Your task to perform on an android device: Go to network settings Image 0: 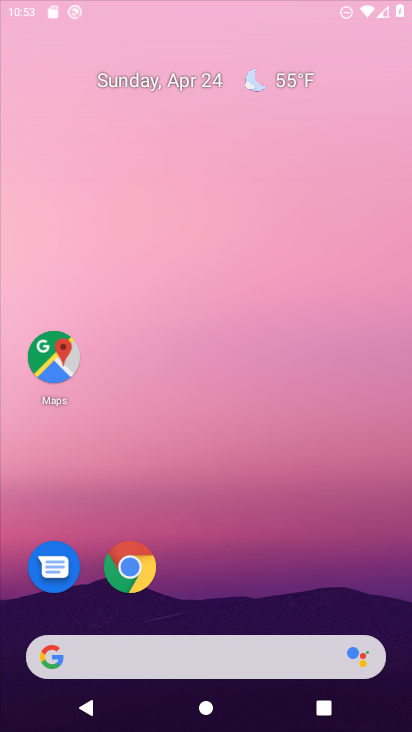
Step 0: click (383, 208)
Your task to perform on an android device: Go to network settings Image 1: 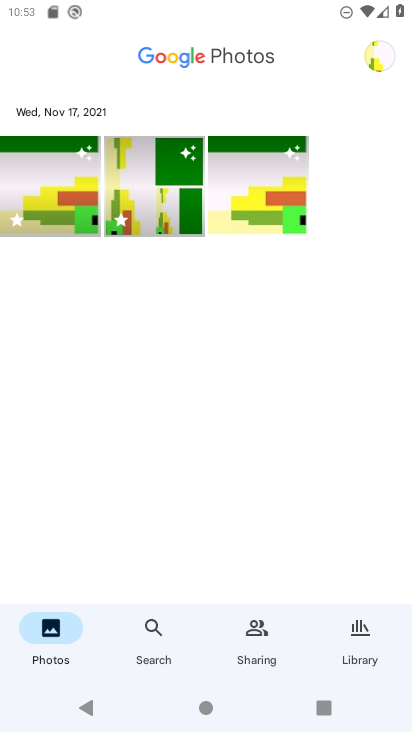
Step 1: press home button
Your task to perform on an android device: Go to network settings Image 2: 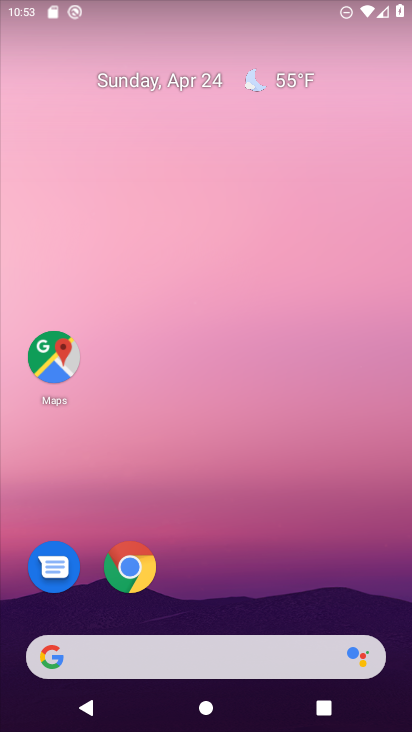
Step 2: drag from (387, 538) to (362, 158)
Your task to perform on an android device: Go to network settings Image 3: 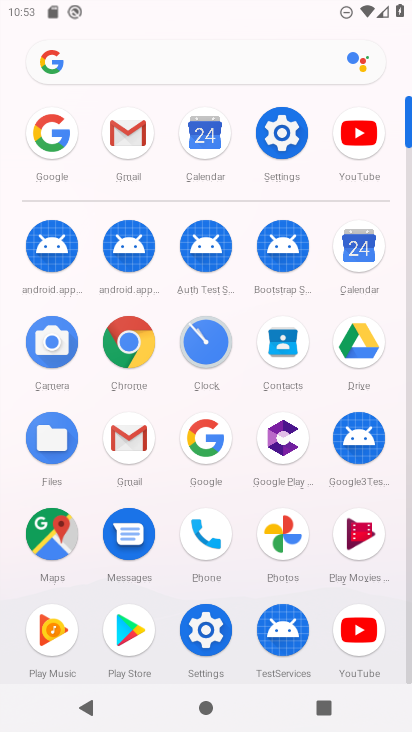
Step 3: click (276, 132)
Your task to perform on an android device: Go to network settings Image 4: 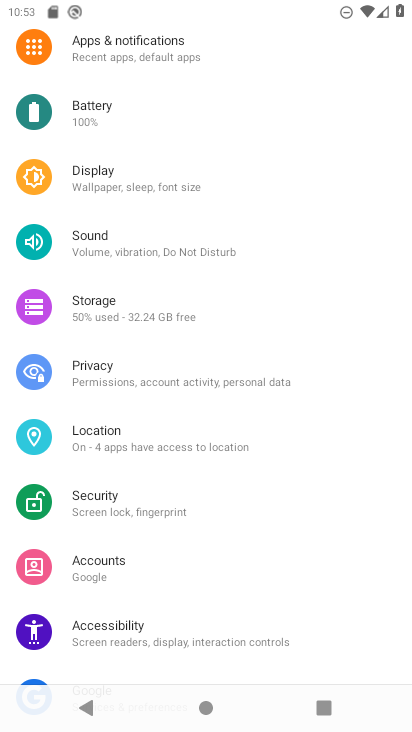
Step 4: drag from (293, 106) to (311, 594)
Your task to perform on an android device: Go to network settings Image 5: 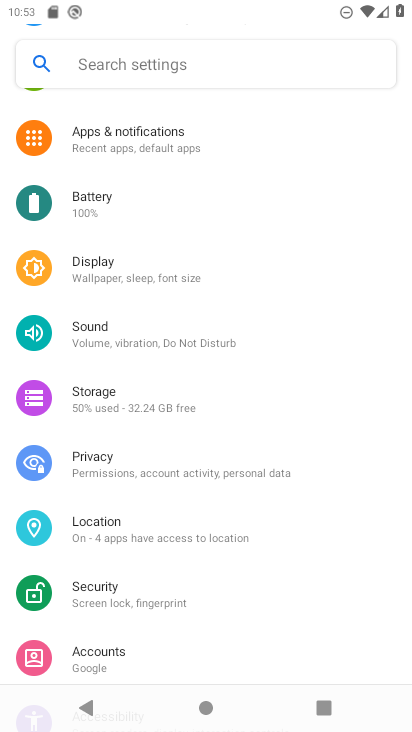
Step 5: drag from (333, 170) to (362, 539)
Your task to perform on an android device: Go to network settings Image 6: 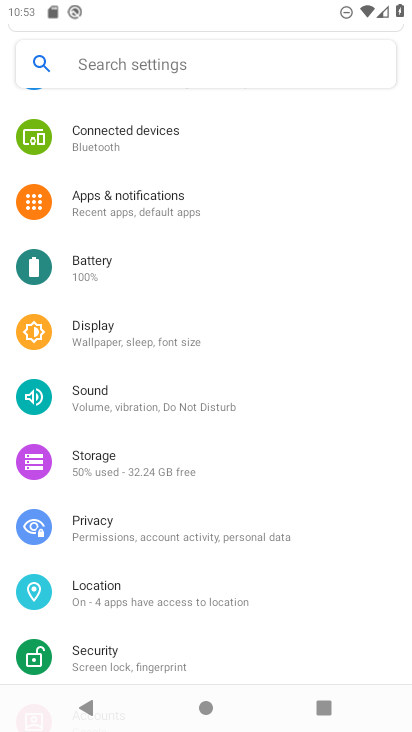
Step 6: drag from (370, 423) to (383, 611)
Your task to perform on an android device: Go to network settings Image 7: 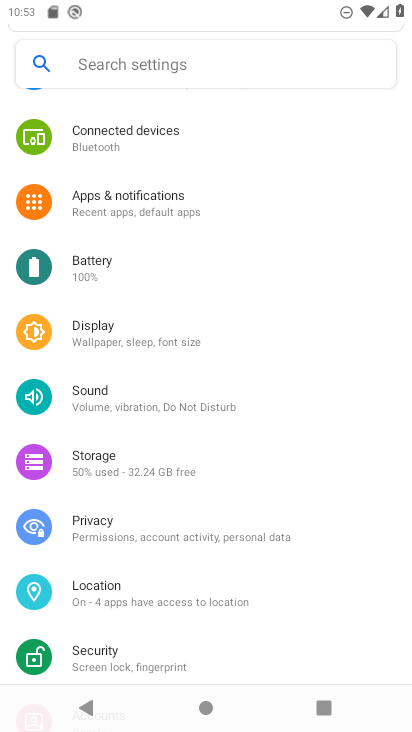
Step 7: drag from (367, 192) to (395, 608)
Your task to perform on an android device: Go to network settings Image 8: 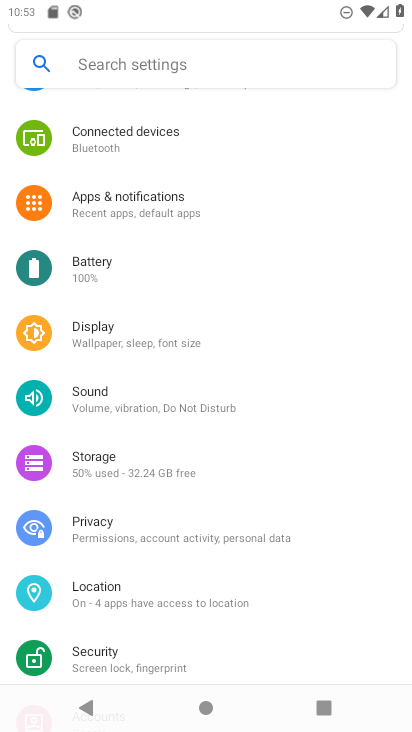
Step 8: drag from (344, 161) to (358, 541)
Your task to perform on an android device: Go to network settings Image 9: 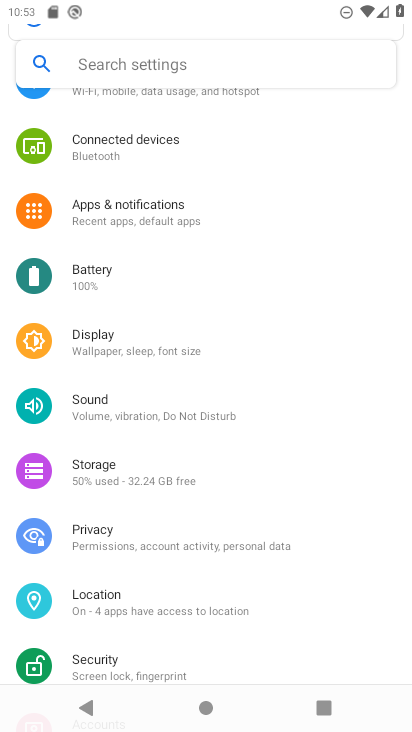
Step 9: click (125, 89)
Your task to perform on an android device: Go to network settings Image 10: 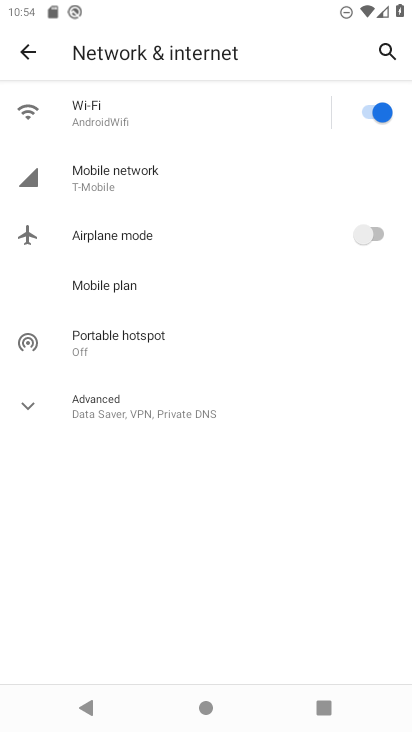
Step 10: task complete